Your task to perform on an android device: snooze an email in the gmail app Image 0: 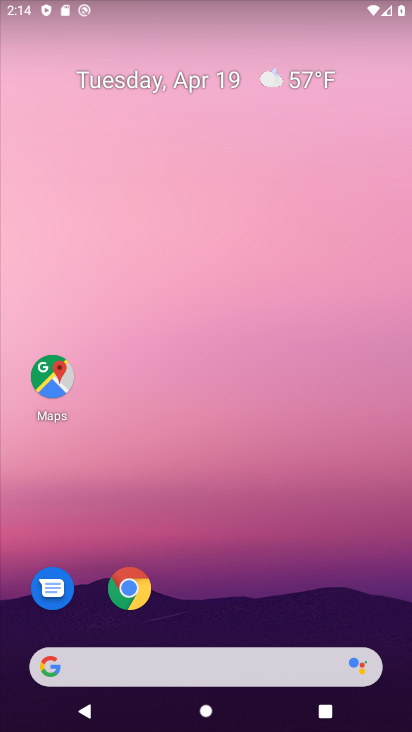
Step 0: drag from (310, 569) to (351, 158)
Your task to perform on an android device: snooze an email in the gmail app Image 1: 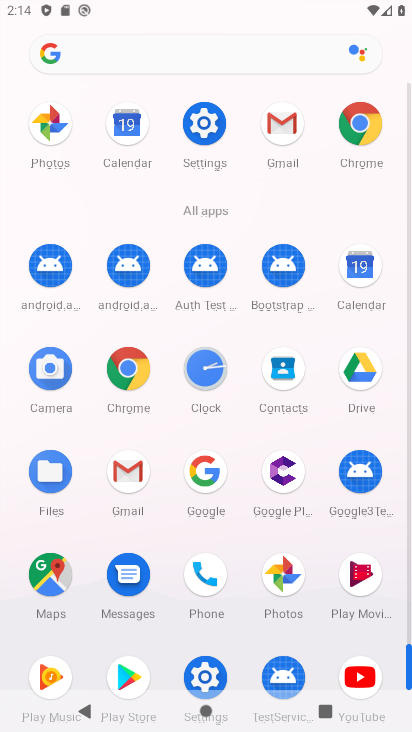
Step 1: click (280, 117)
Your task to perform on an android device: snooze an email in the gmail app Image 2: 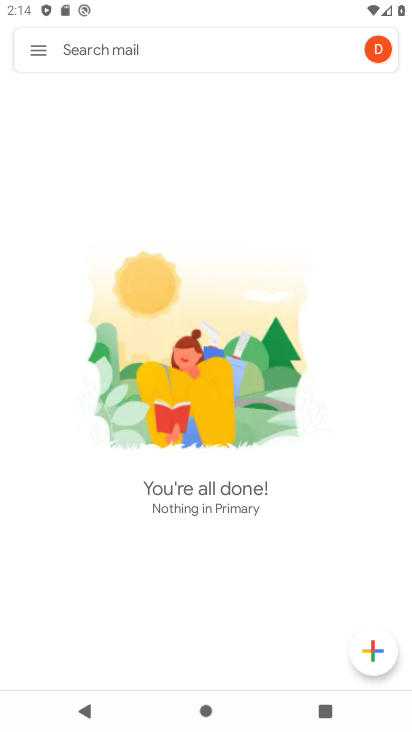
Step 2: click (35, 52)
Your task to perform on an android device: snooze an email in the gmail app Image 3: 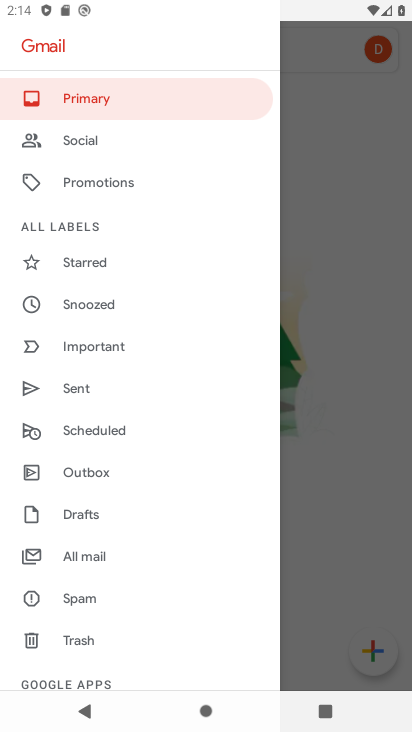
Step 3: click (104, 553)
Your task to perform on an android device: snooze an email in the gmail app Image 4: 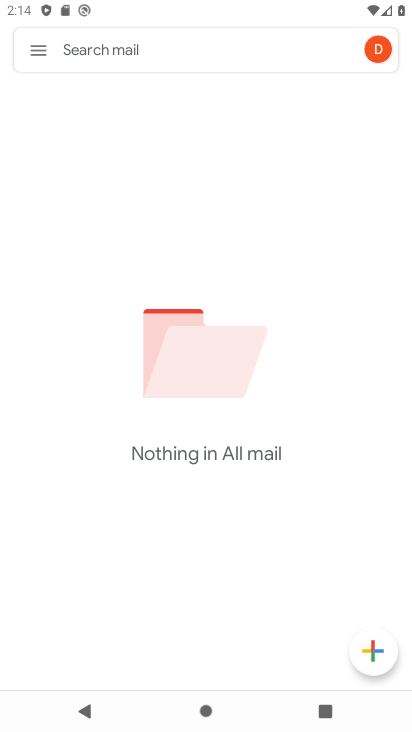
Step 4: task complete